Your task to perform on an android device: Search for the best websites on the internet Image 0: 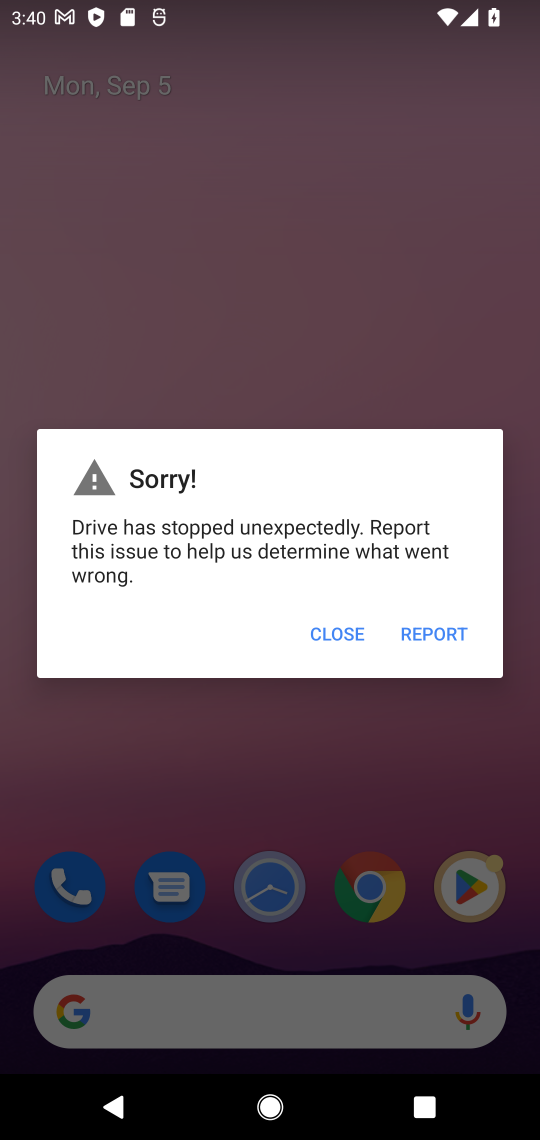
Step 0: press home button
Your task to perform on an android device: Search for the best websites on the internet Image 1: 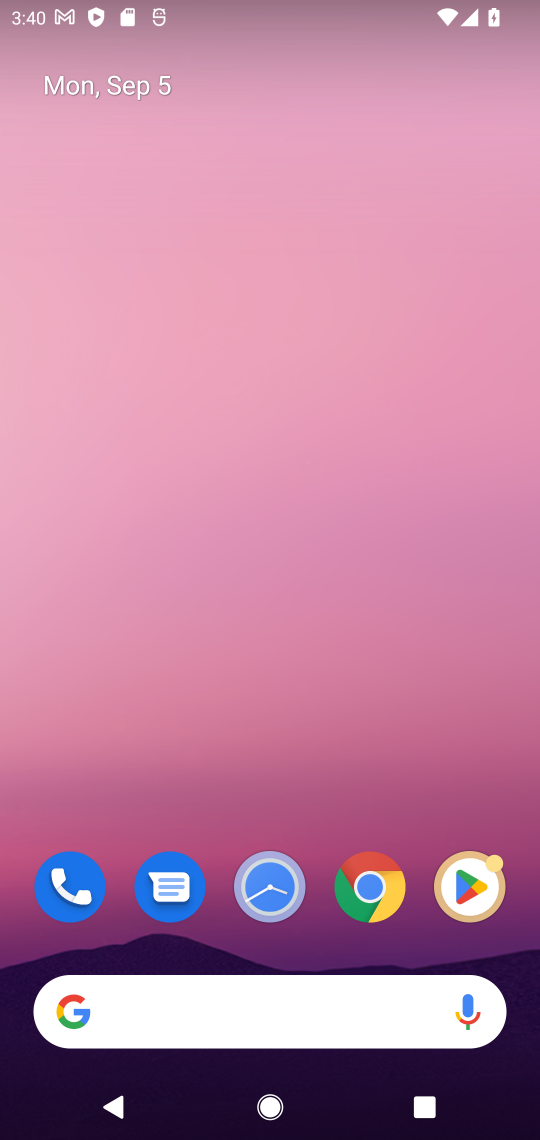
Step 1: drag from (288, 729) to (323, 0)
Your task to perform on an android device: Search for the best websites on the internet Image 2: 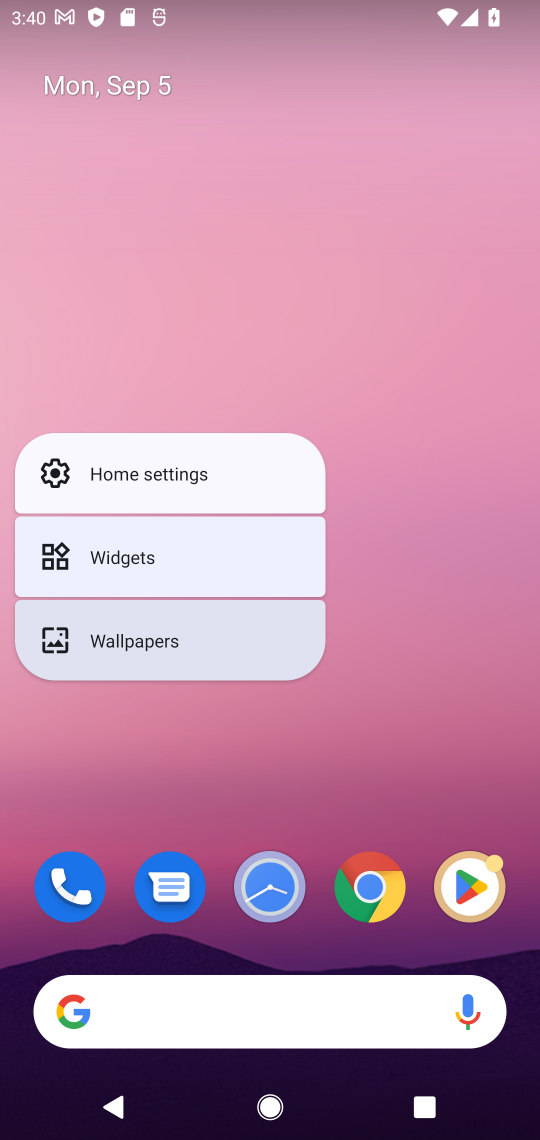
Step 2: click (416, 523)
Your task to perform on an android device: Search for the best websites on the internet Image 3: 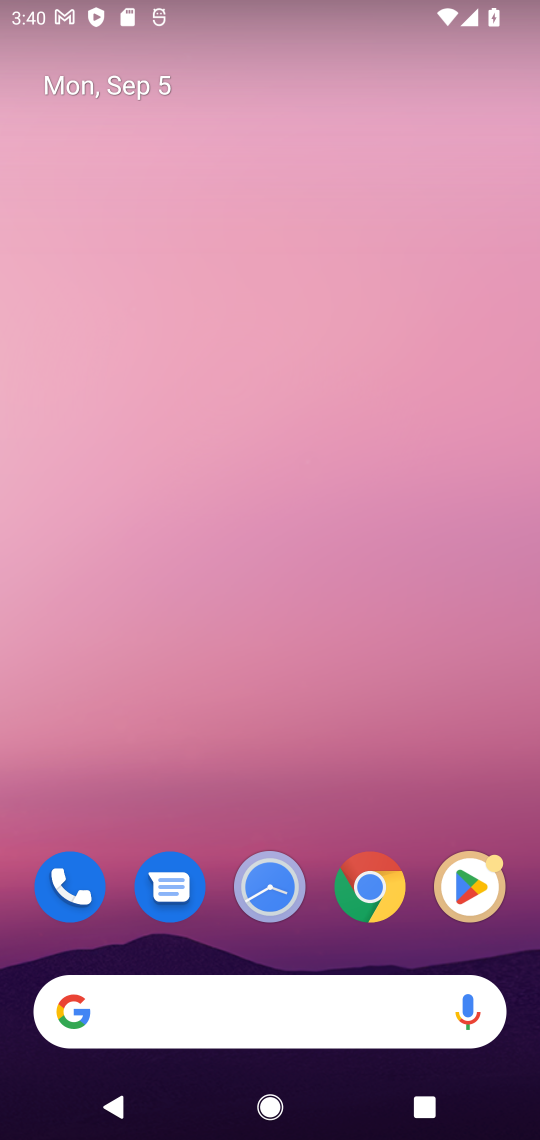
Step 3: drag from (336, 821) to (423, 126)
Your task to perform on an android device: Search for the best websites on the internet Image 4: 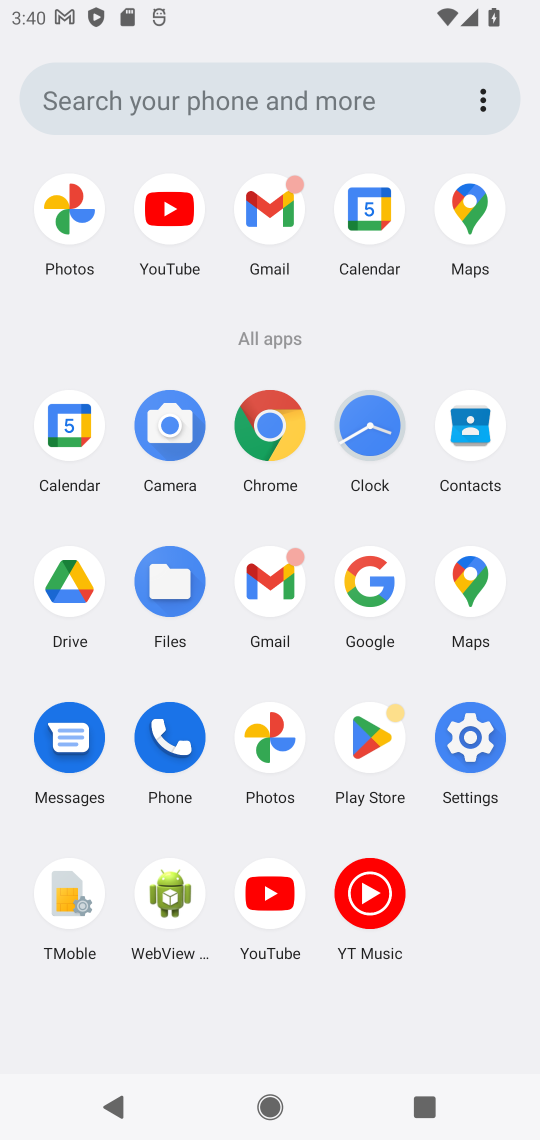
Step 4: click (275, 417)
Your task to perform on an android device: Search for the best websites on the internet Image 5: 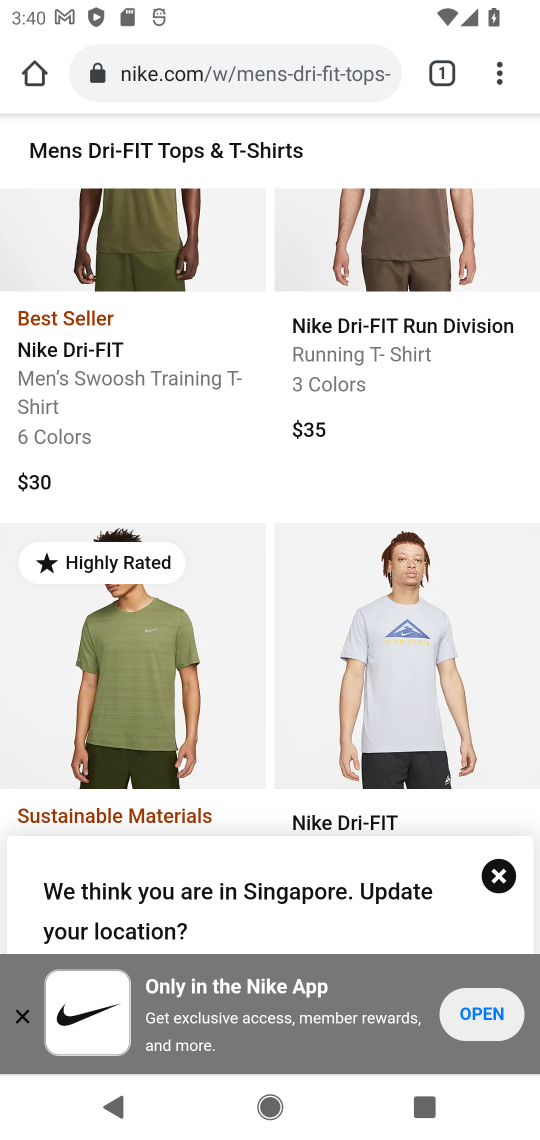
Step 5: click (271, 67)
Your task to perform on an android device: Search for the best websites on the internet Image 6: 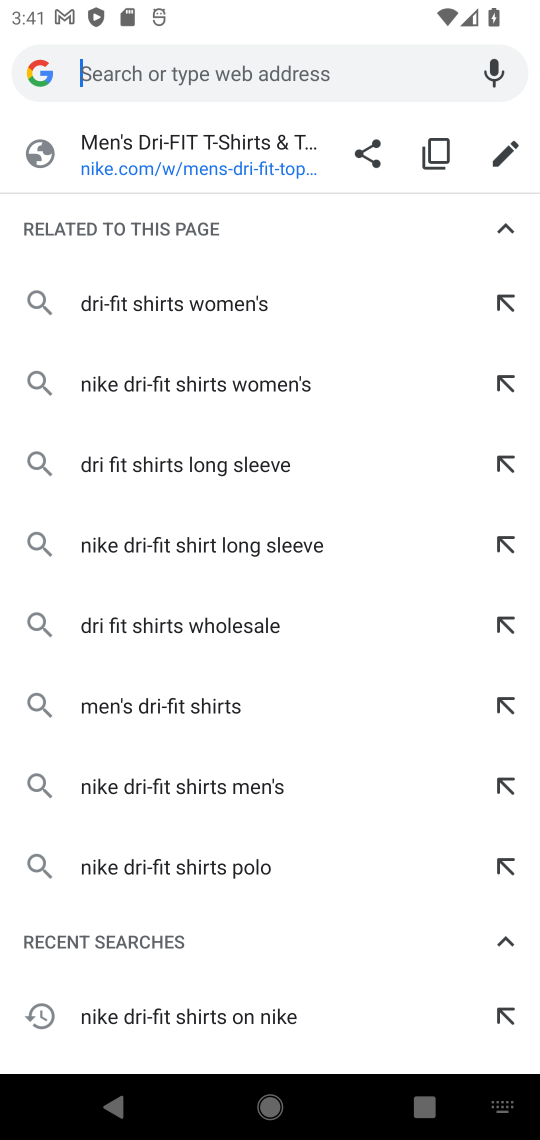
Step 6: type "the best websites on the internet"
Your task to perform on an android device: Search for the best websites on the internet Image 7: 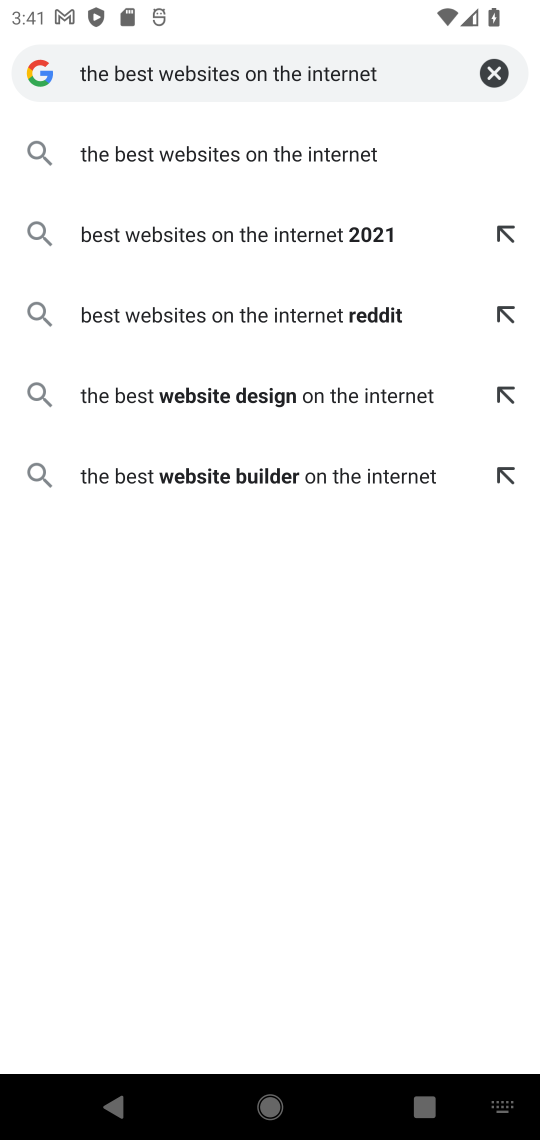
Step 7: press enter
Your task to perform on an android device: Search for the best websites on the internet Image 8: 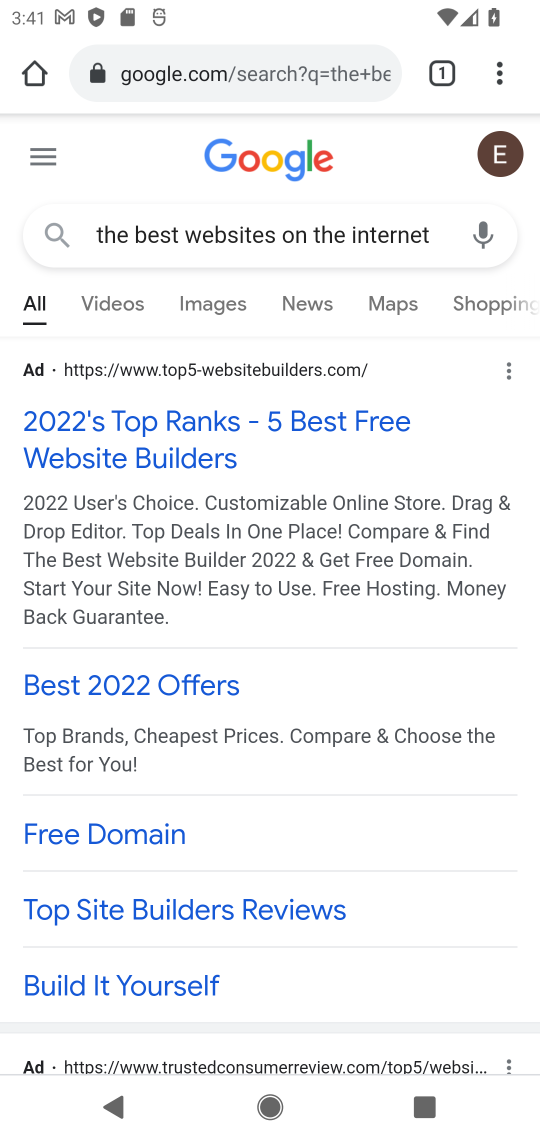
Step 8: drag from (238, 533) to (257, 314)
Your task to perform on an android device: Search for the best websites on the internet Image 9: 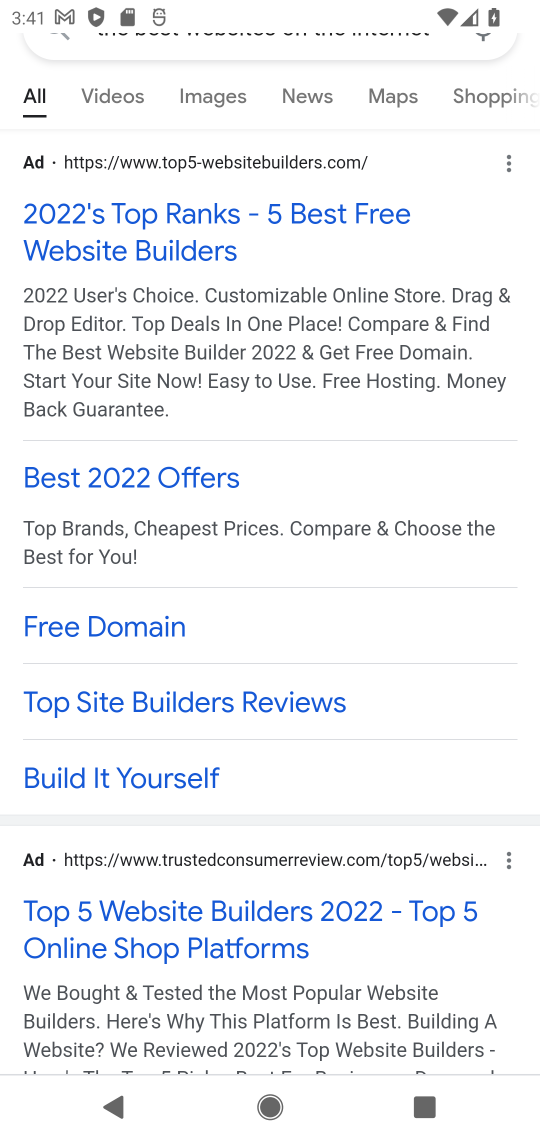
Step 9: drag from (290, 1003) to (241, 412)
Your task to perform on an android device: Search for the best websites on the internet Image 10: 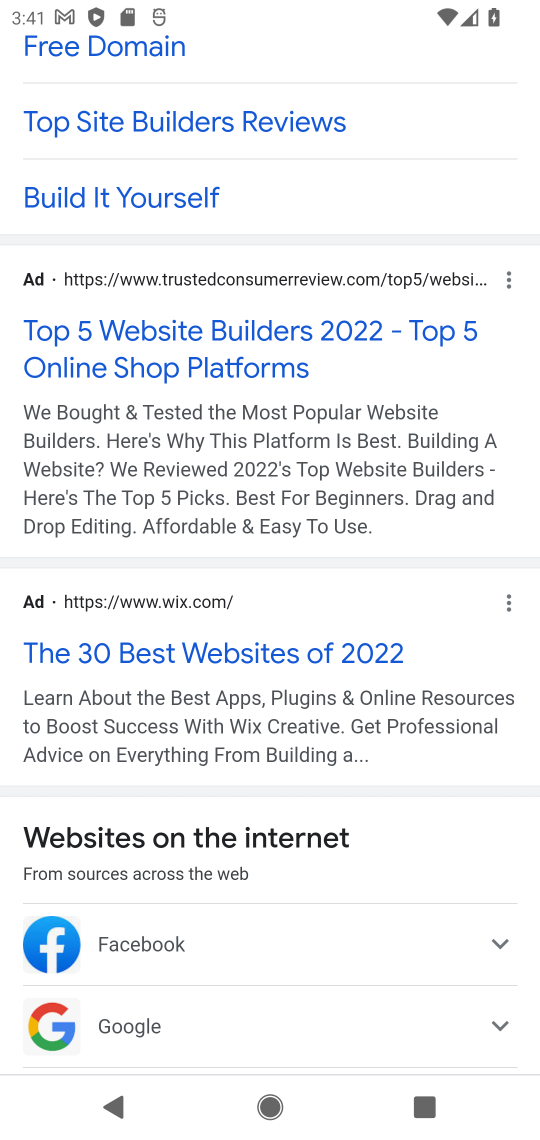
Step 10: drag from (384, 952) to (369, 398)
Your task to perform on an android device: Search for the best websites on the internet Image 11: 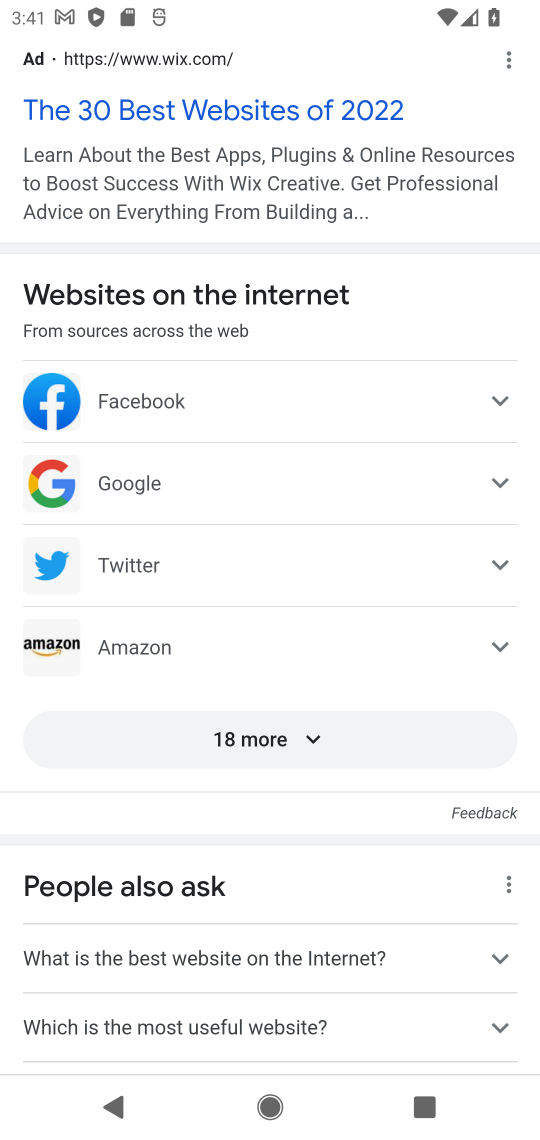
Step 11: drag from (220, 970) to (275, 436)
Your task to perform on an android device: Search for the best websites on the internet Image 12: 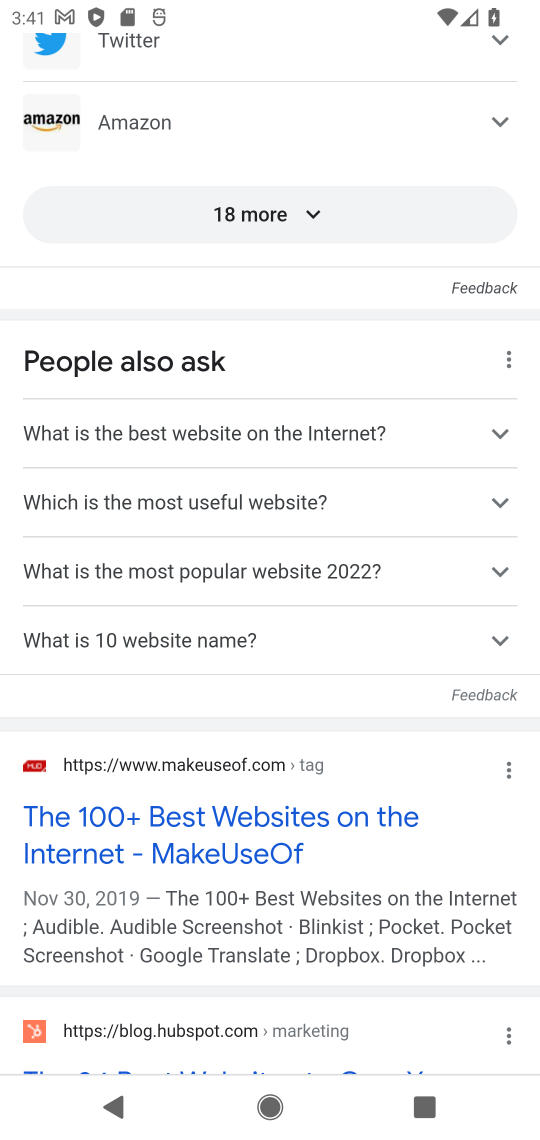
Step 12: click (219, 833)
Your task to perform on an android device: Search for the best websites on the internet Image 13: 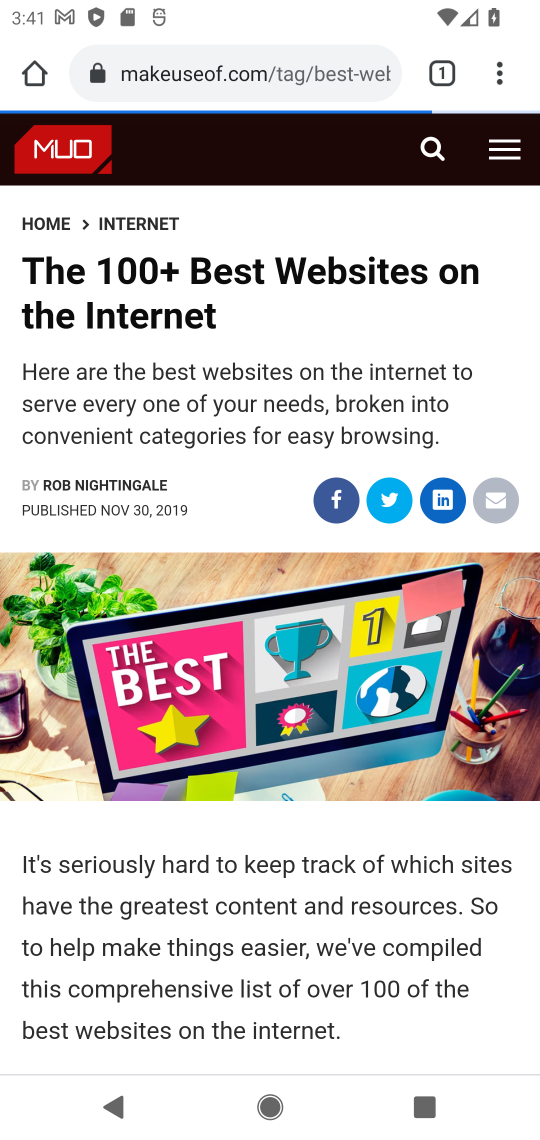
Step 13: task complete